Your task to perform on an android device: open a bookmark in the chrome app Image 0: 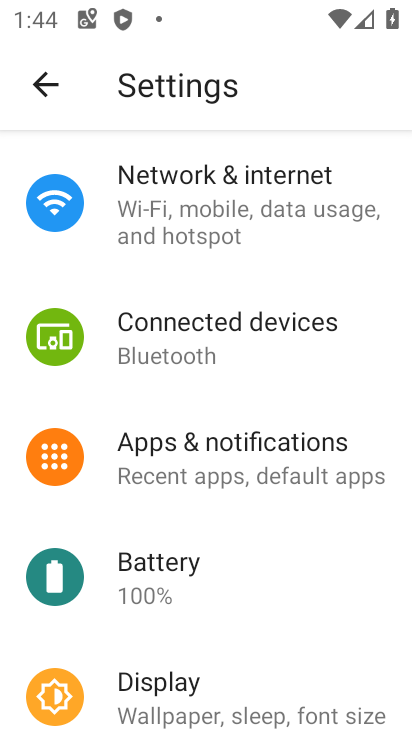
Step 0: drag from (222, 648) to (252, 304)
Your task to perform on an android device: open a bookmark in the chrome app Image 1: 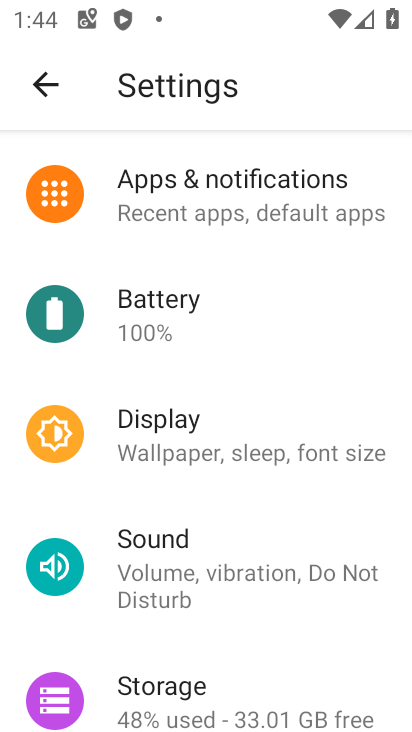
Step 1: press home button
Your task to perform on an android device: open a bookmark in the chrome app Image 2: 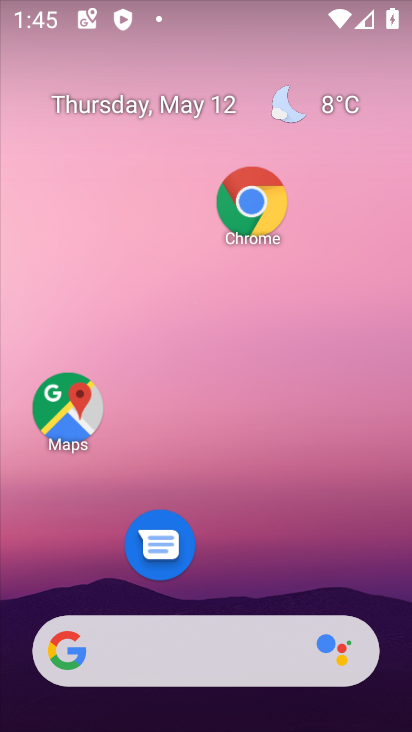
Step 2: drag from (233, 604) to (250, 454)
Your task to perform on an android device: open a bookmark in the chrome app Image 3: 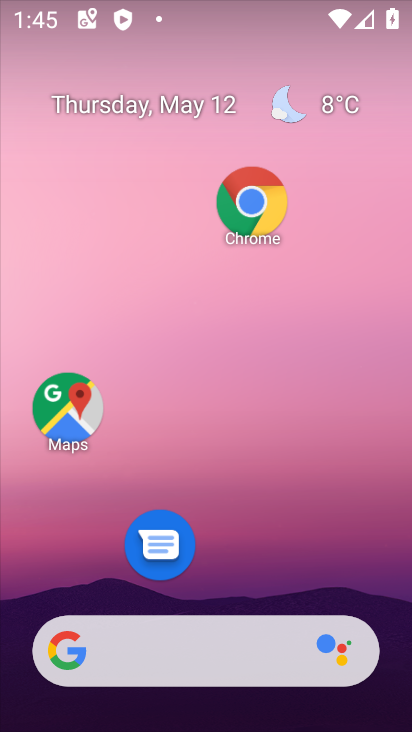
Step 3: drag from (218, 537) to (230, 296)
Your task to perform on an android device: open a bookmark in the chrome app Image 4: 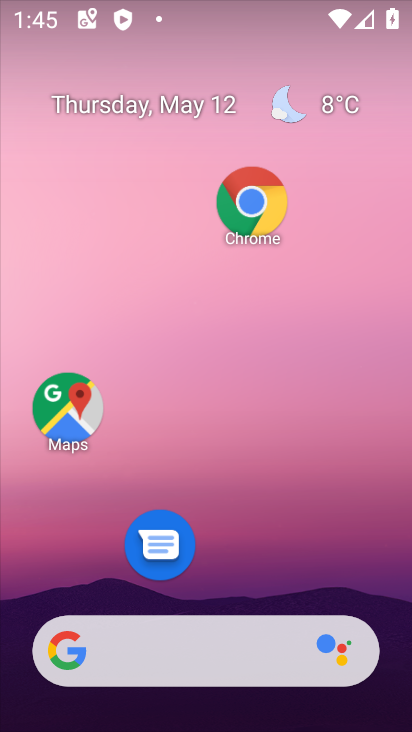
Step 4: drag from (226, 601) to (226, 291)
Your task to perform on an android device: open a bookmark in the chrome app Image 5: 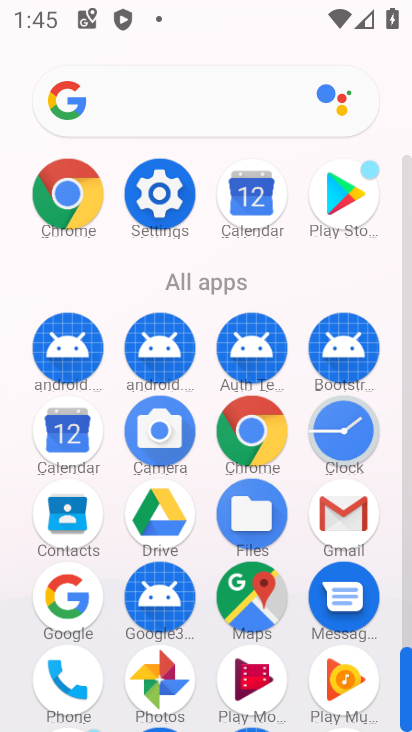
Step 5: click (244, 434)
Your task to perform on an android device: open a bookmark in the chrome app Image 6: 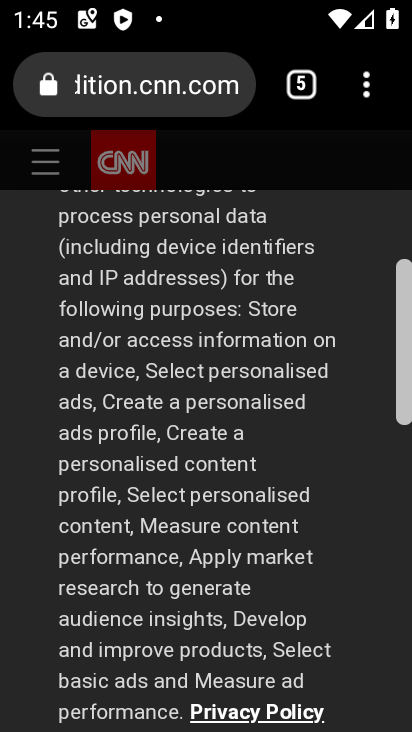
Step 6: task complete